Your task to perform on an android device: uninstall "Facebook" Image 0: 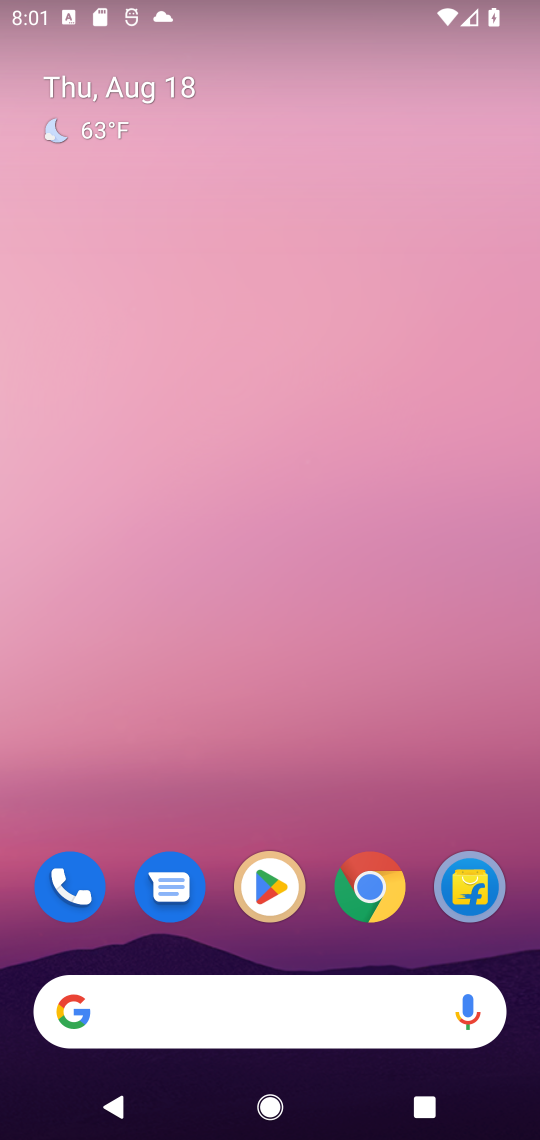
Step 0: click (268, 895)
Your task to perform on an android device: uninstall "Facebook" Image 1: 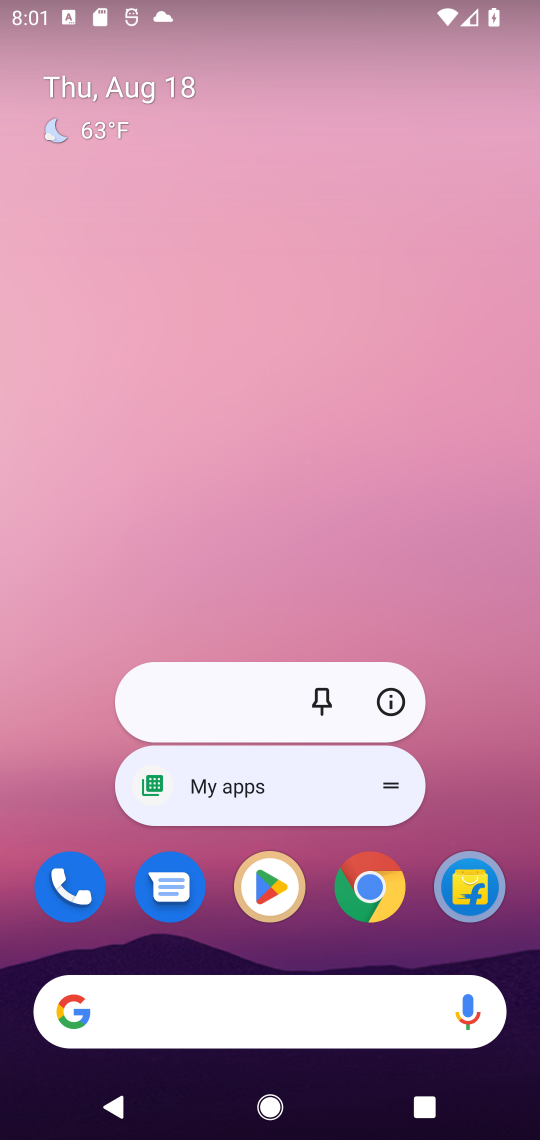
Step 1: click (259, 887)
Your task to perform on an android device: uninstall "Facebook" Image 2: 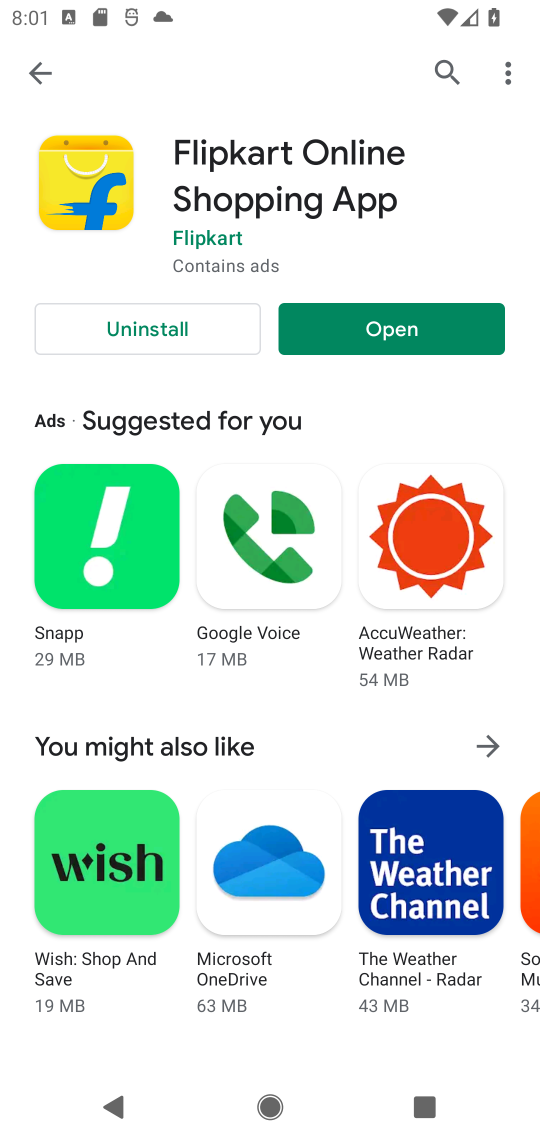
Step 2: click (441, 70)
Your task to perform on an android device: uninstall "Facebook" Image 3: 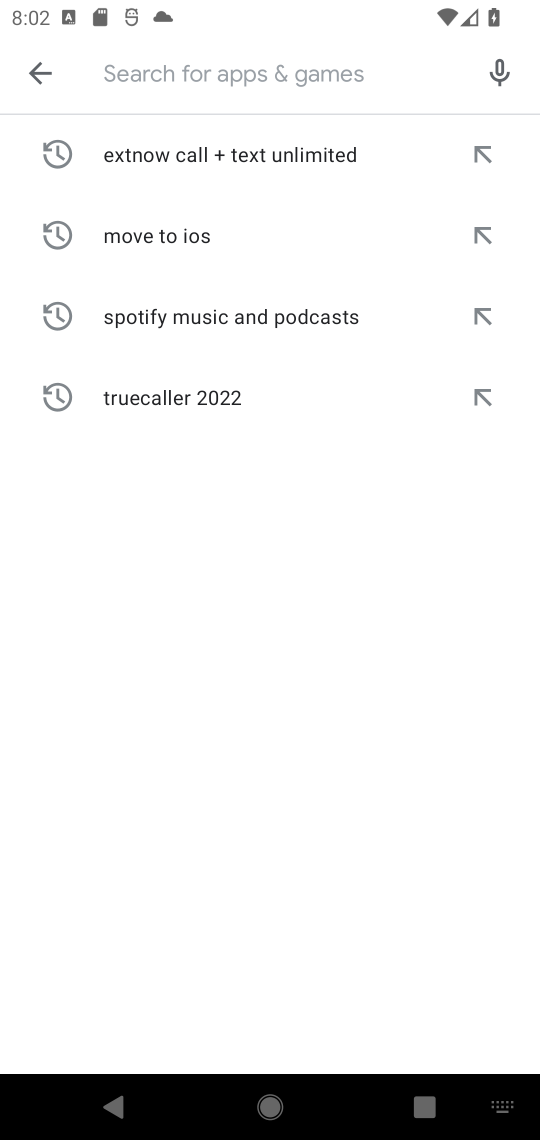
Step 3: type "Facebook"
Your task to perform on an android device: uninstall "Facebook" Image 4: 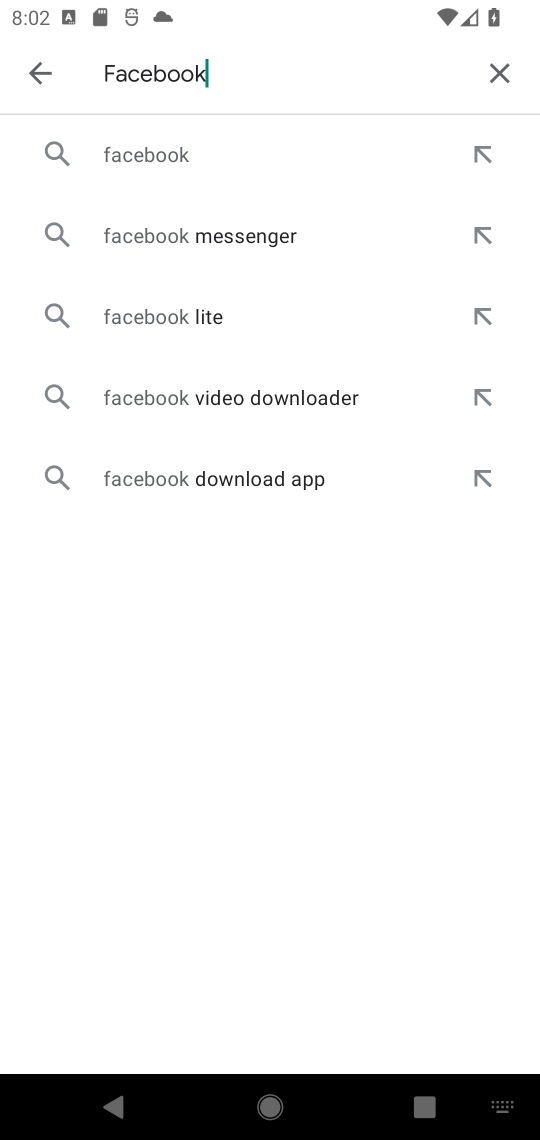
Step 4: click (157, 153)
Your task to perform on an android device: uninstall "Facebook" Image 5: 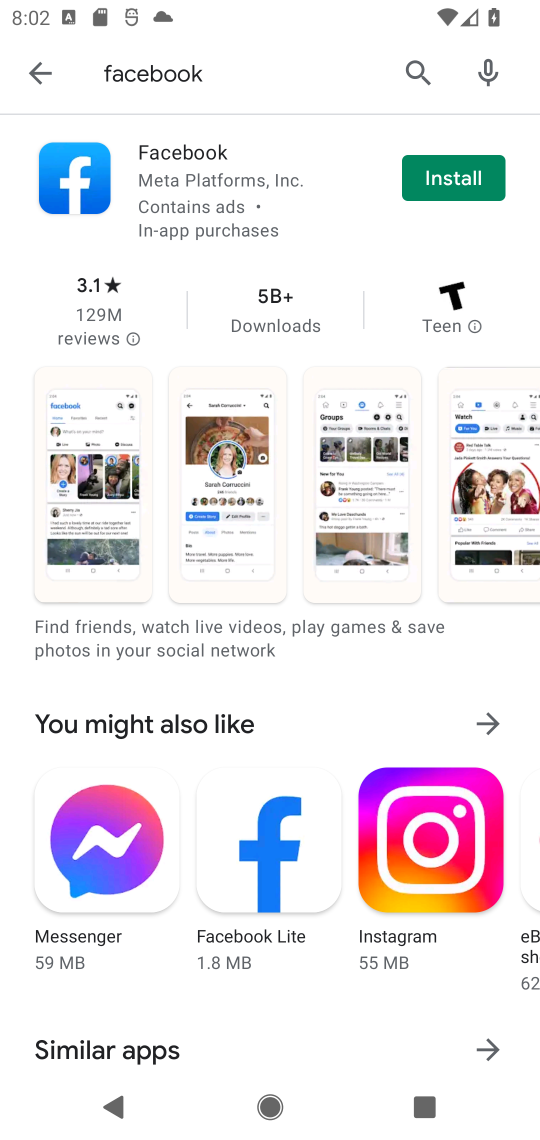
Step 5: task complete